Your task to perform on an android device: turn off data saver in the chrome app Image 0: 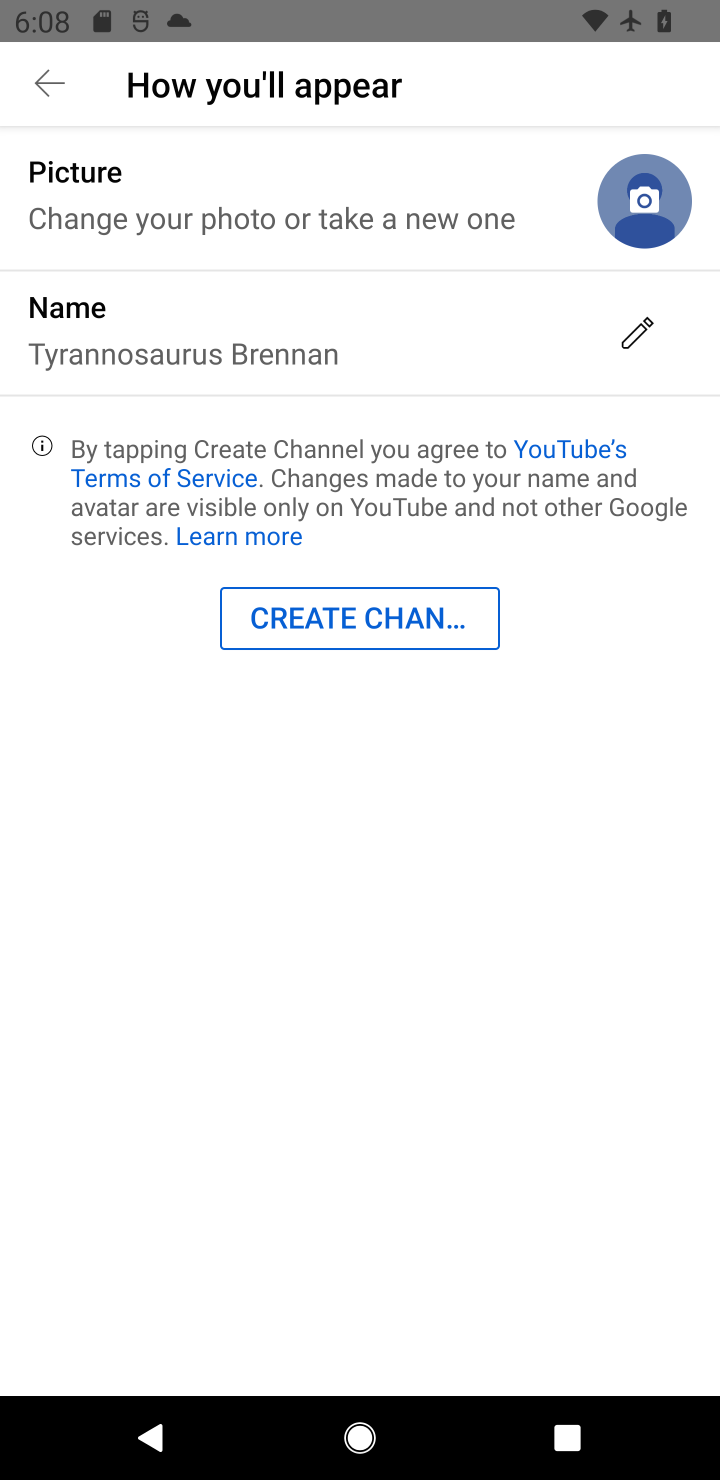
Step 0: press home button
Your task to perform on an android device: turn off data saver in the chrome app Image 1: 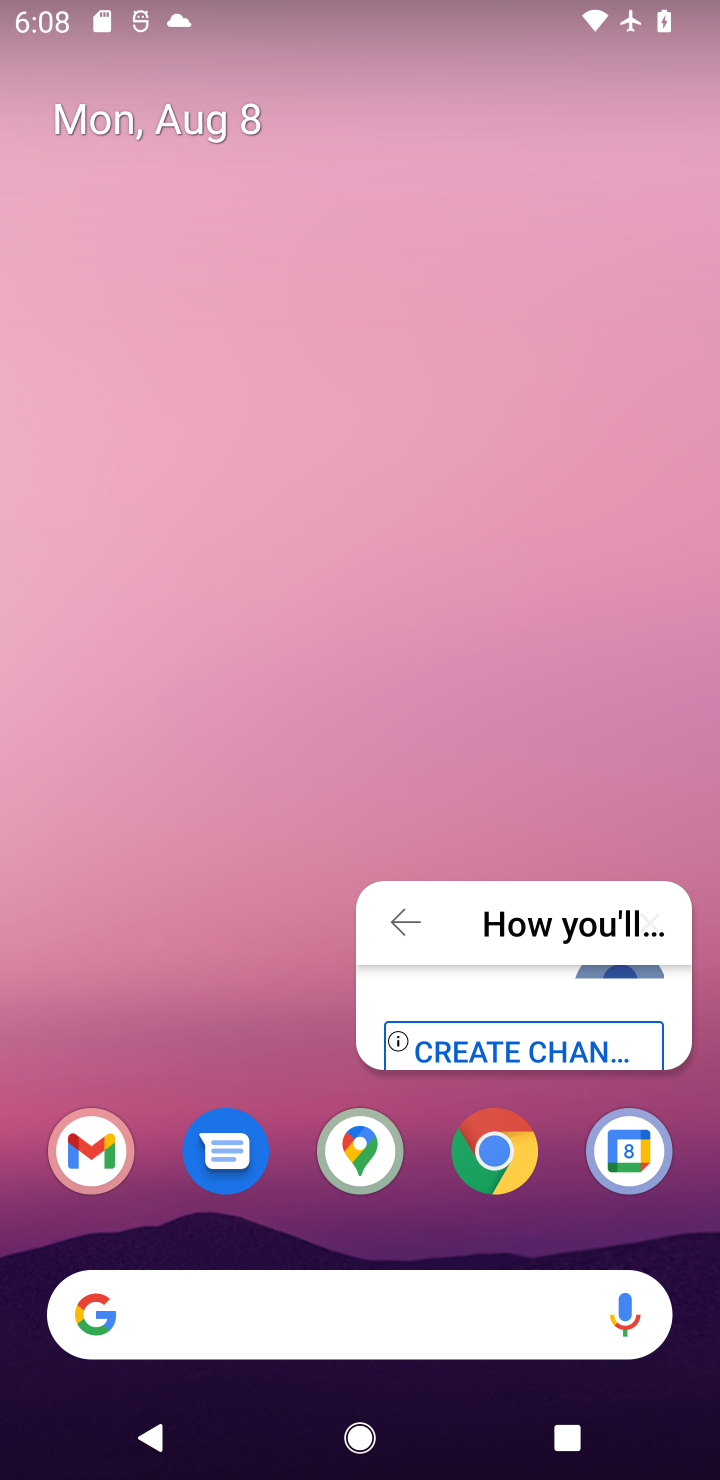
Step 1: drag from (498, 935) to (347, 1336)
Your task to perform on an android device: turn off data saver in the chrome app Image 2: 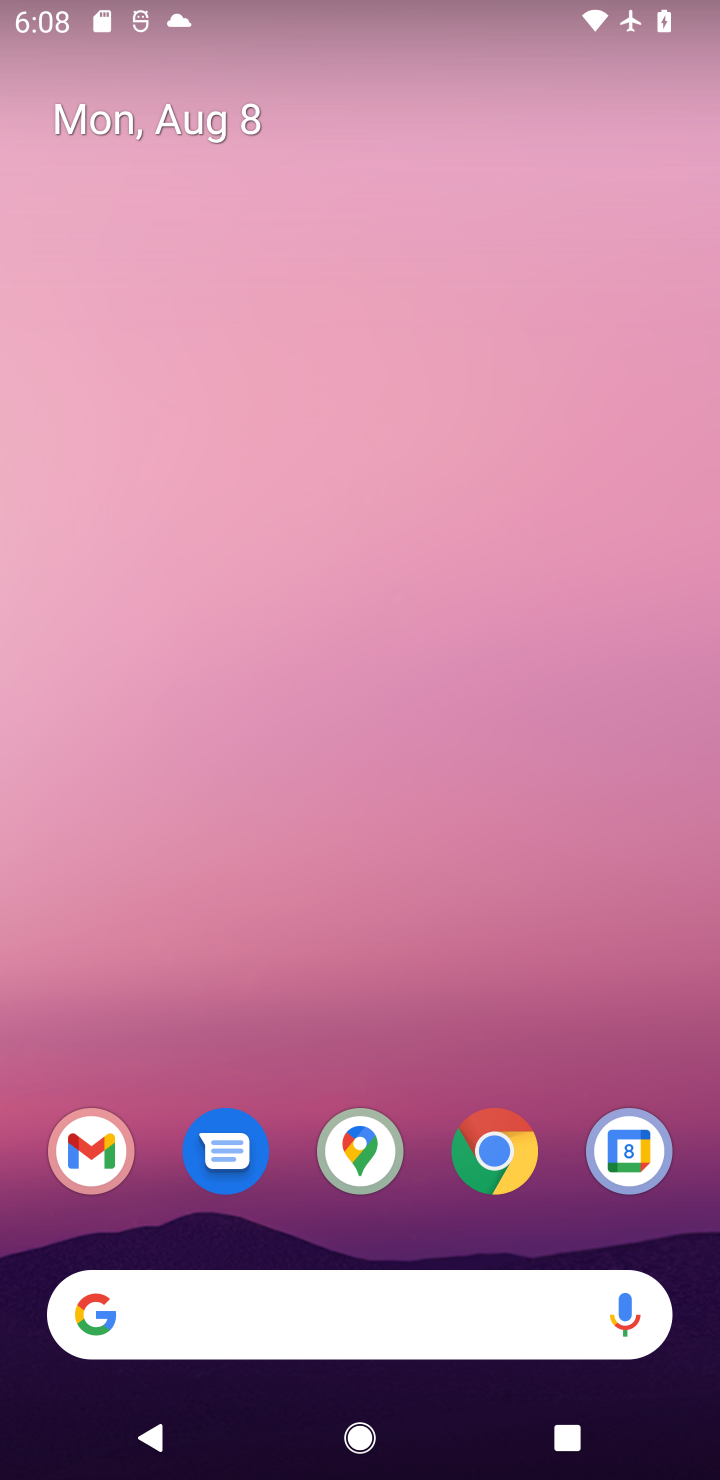
Step 2: click (503, 1129)
Your task to perform on an android device: turn off data saver in the chrome app Image 3: 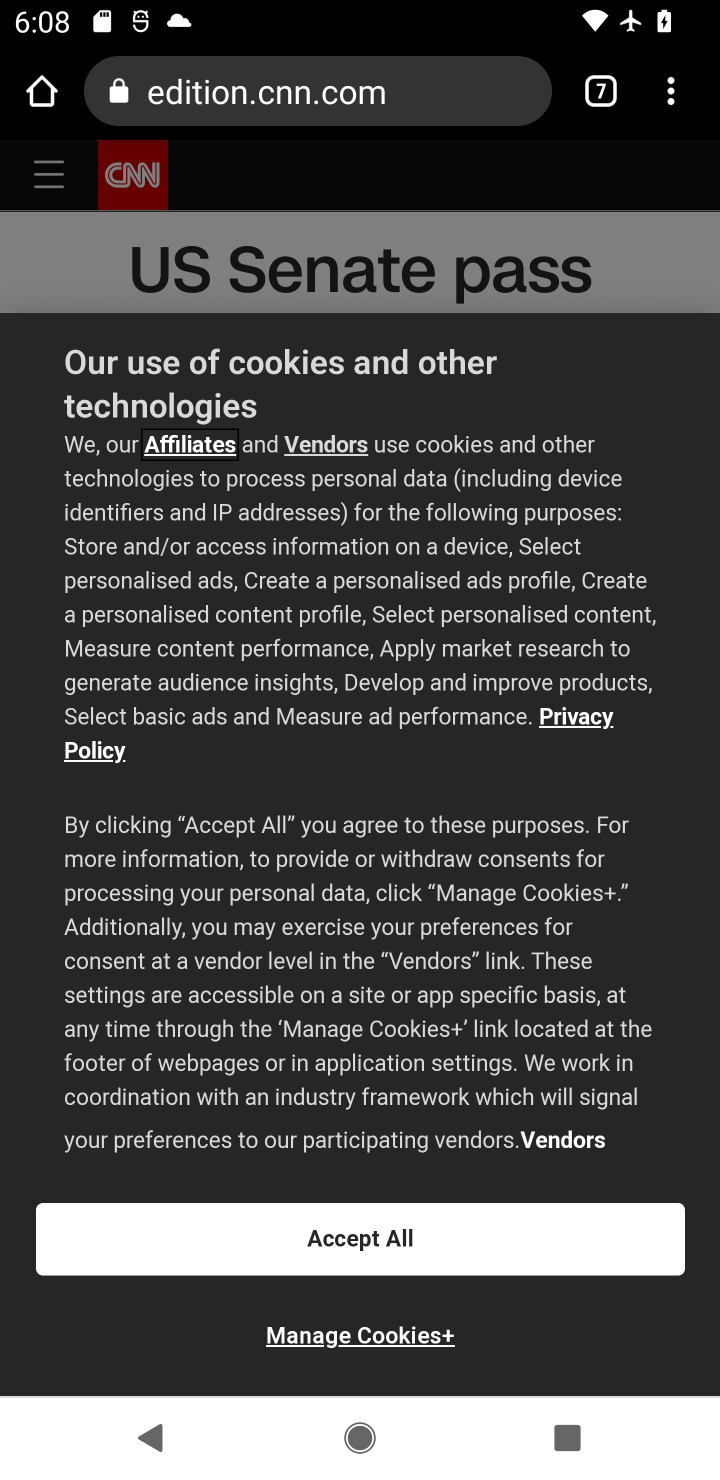
Step 3: click (656, 93)
Your task to perform on an android device: turn off data saver in the chrome app Image 4: 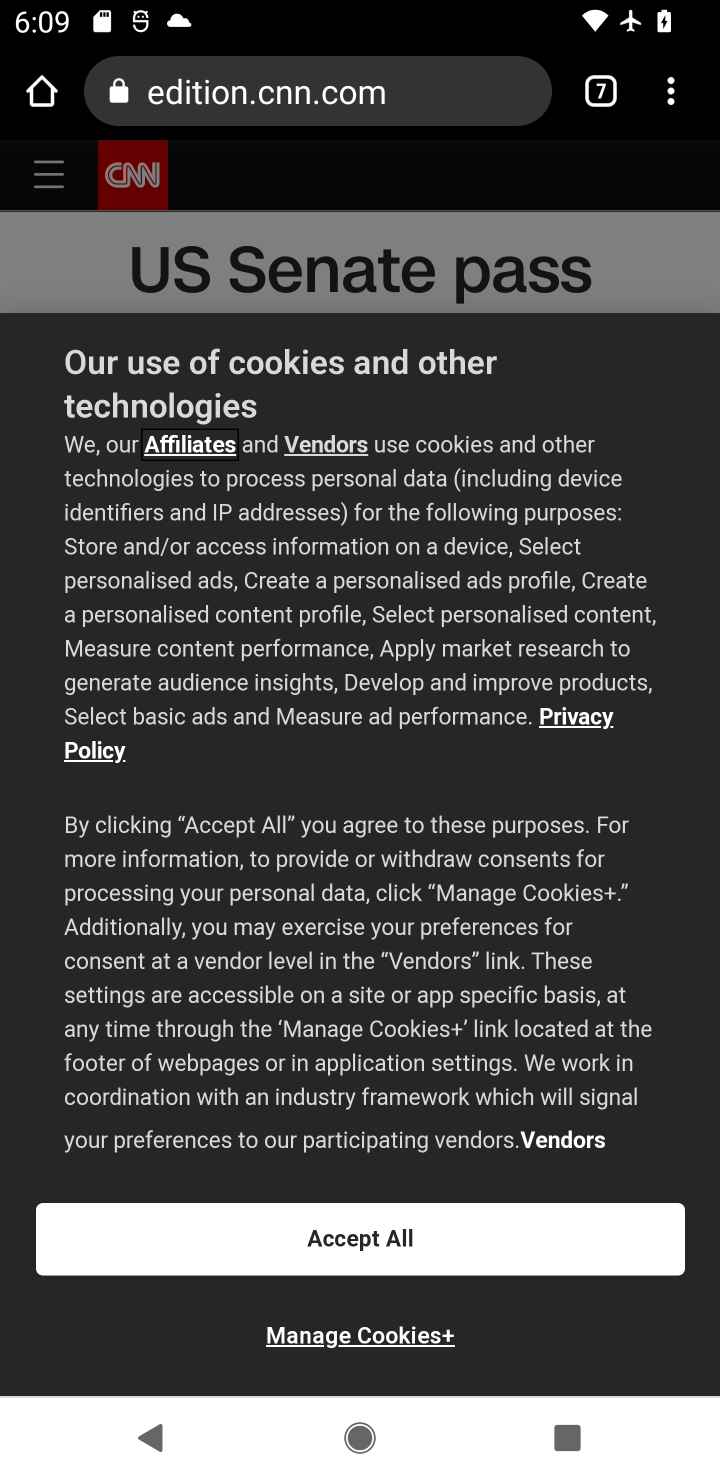
Step 4: click (678, 116)
Your task to perform on an android device: turn off data saver in the chrome app Image 5: 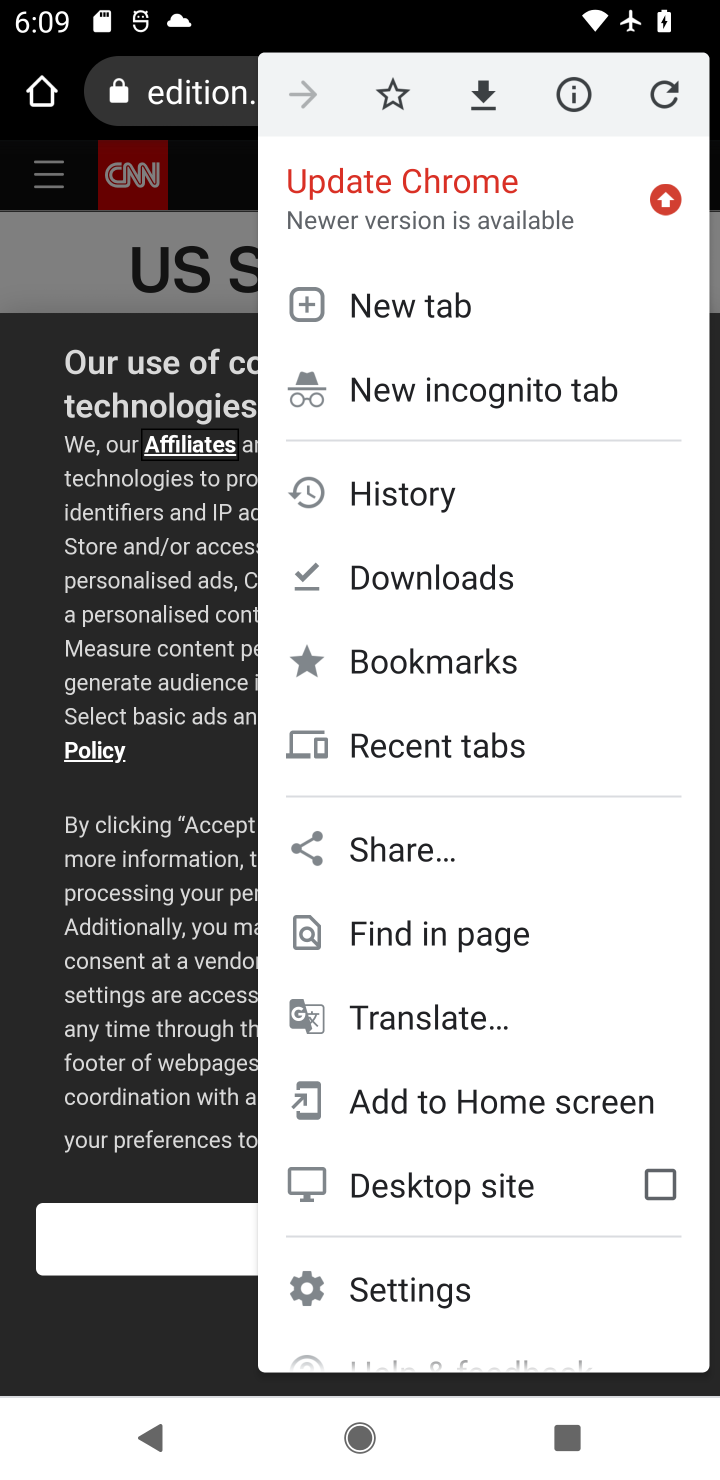
Step 5: drag from (466, 1103) to (478, 473)
Your task to perform on an android device: turn off data saver in the chrome app Image 6: 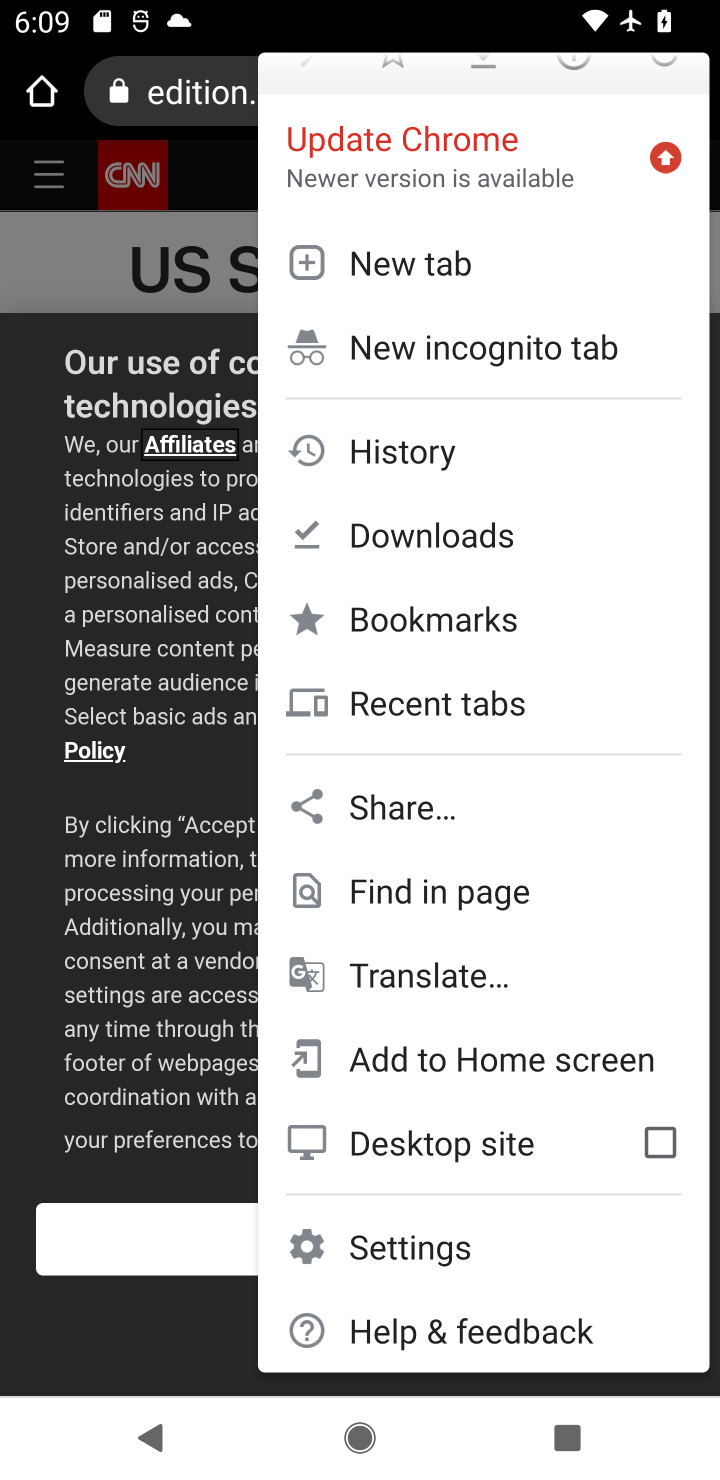
Step 6: click (416, 1253)
Your task to perform on an android device: turn off data saver in the chrome app Image 7: 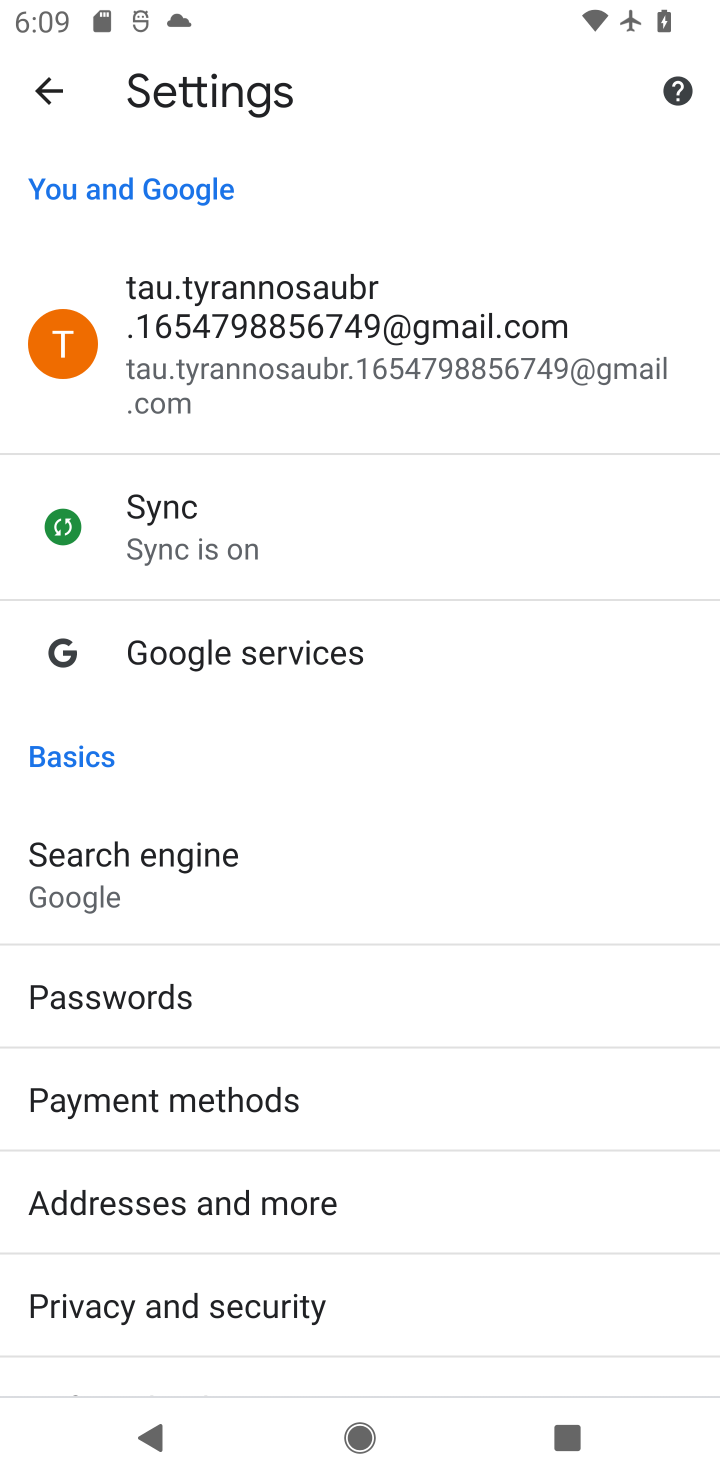
Step 7: drag from (329, 1261) to (319, 457)
Your task to perform on an android device: turn off data saver in the chrome app Image 8: 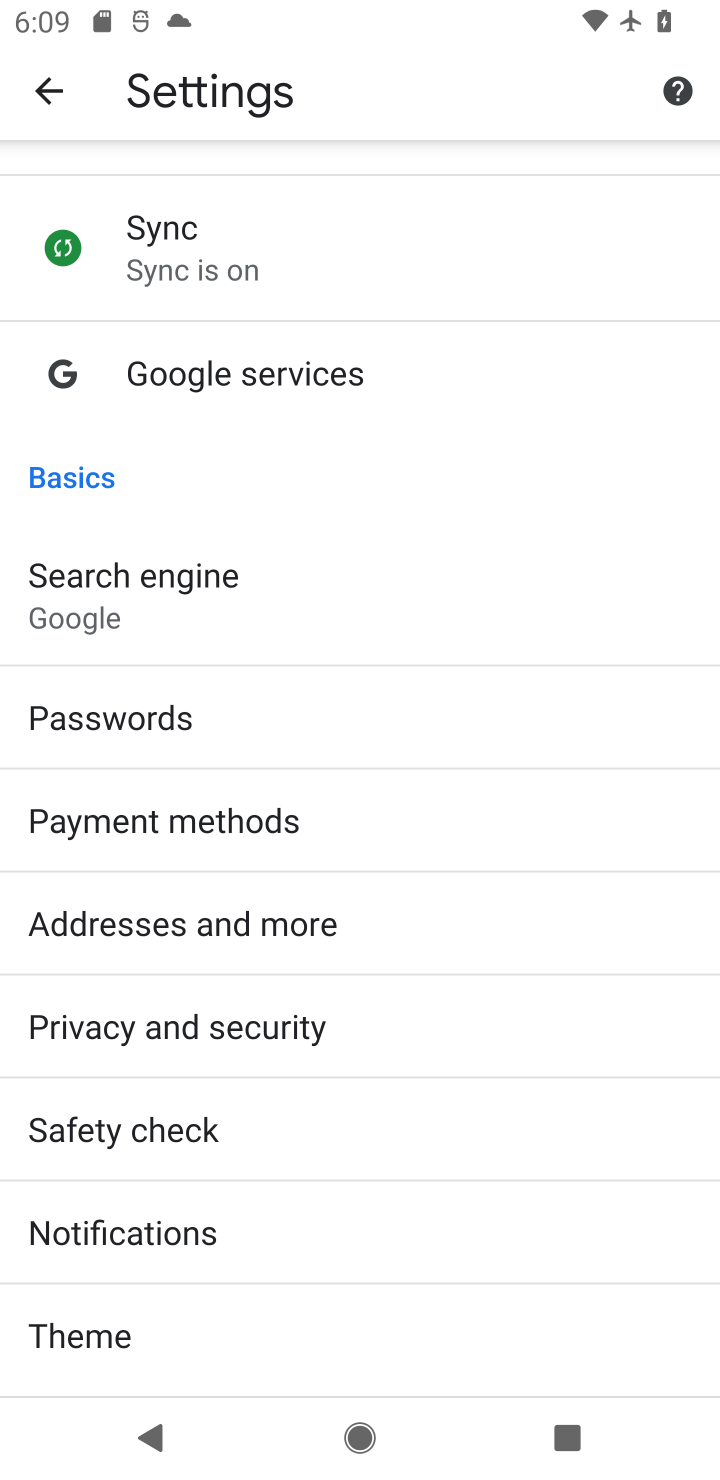
Step 8: drag from (348, 1242) to (396, 551)
Your task to perform on an android device: turn off data saver in the chrome app Image 9: 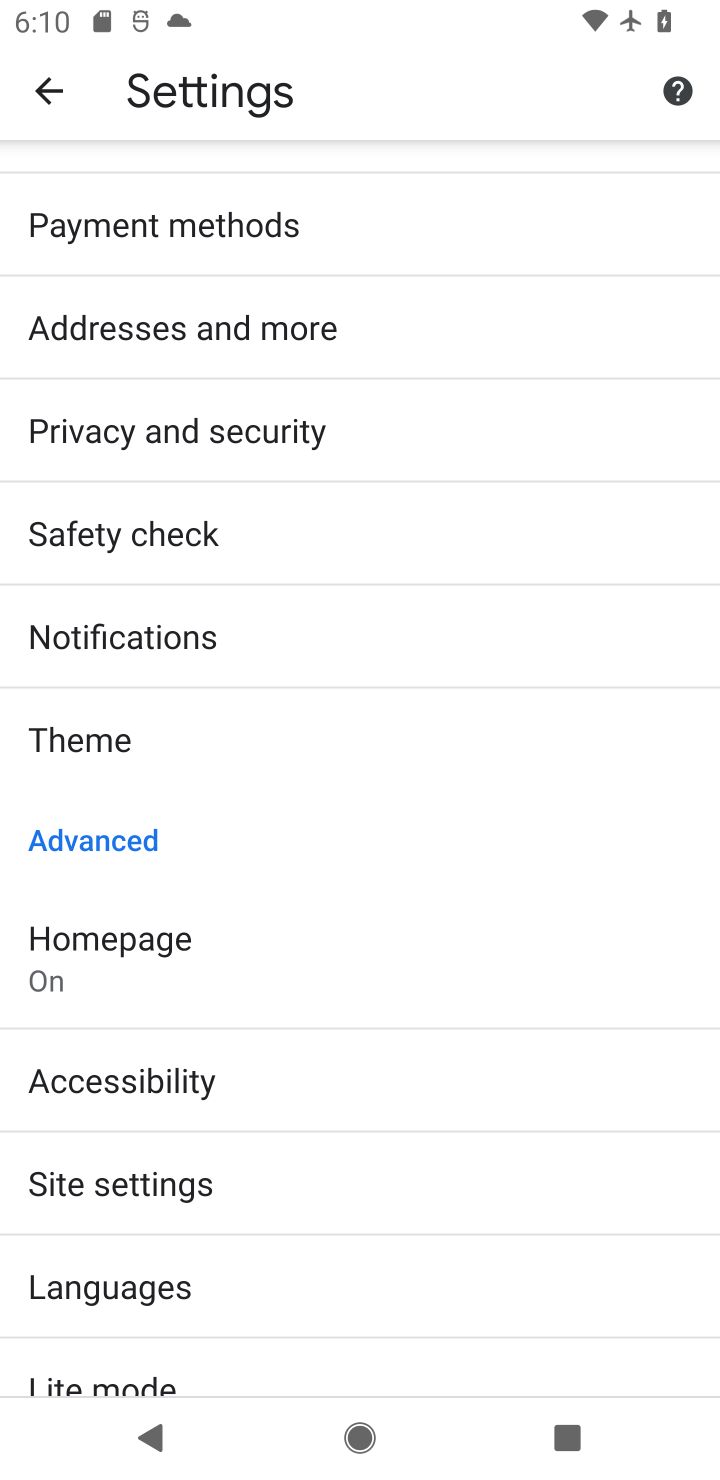
Step 9: drag from (330, 1262) to (330, 573)
Your task to perform on an android device: turn off data saver in the chrome app Image 10: 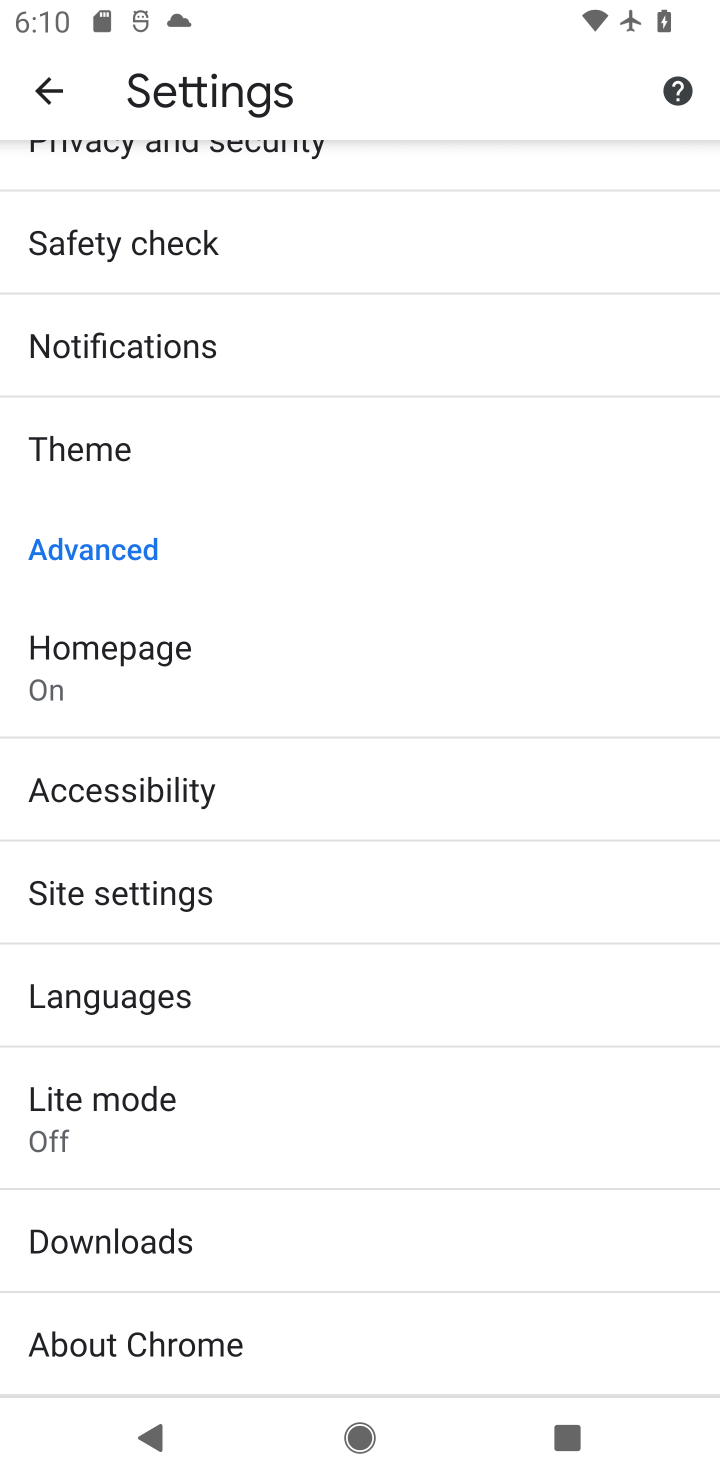
Step 10: click (215, 1121)
Your task to perform on an android device: turn off data saver in the chrome app Image 11: 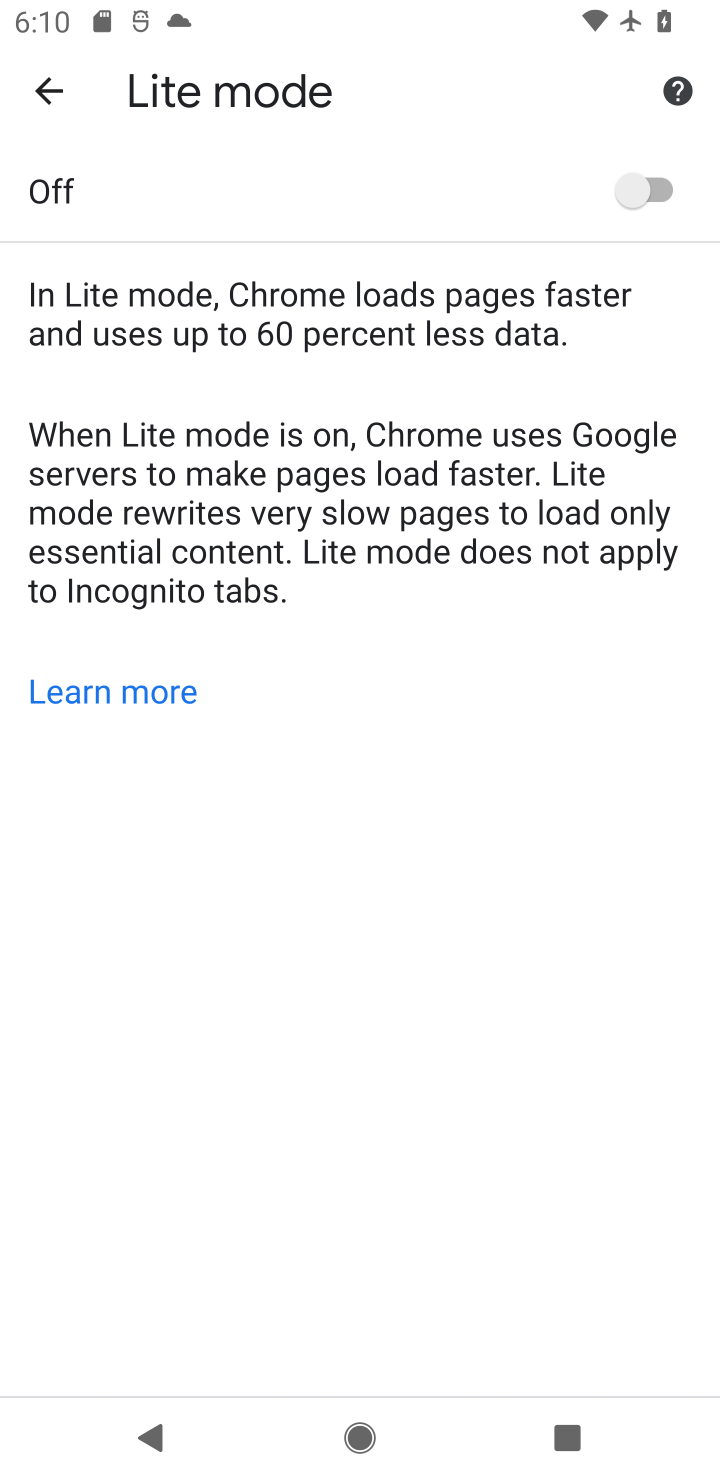
Step 11: task complete